Your task to perform on an android device: Go to Android settings Image 0: 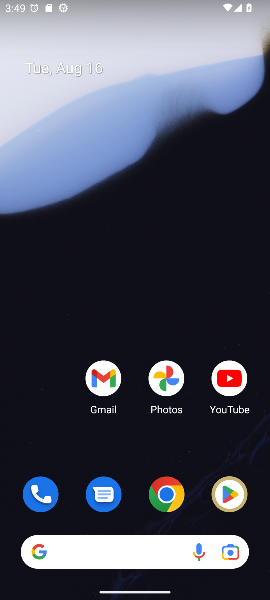
Step 0: drag from (140, 546) to (116, 22)
Your task to perform on an android device: Go to Android settings Image 1: 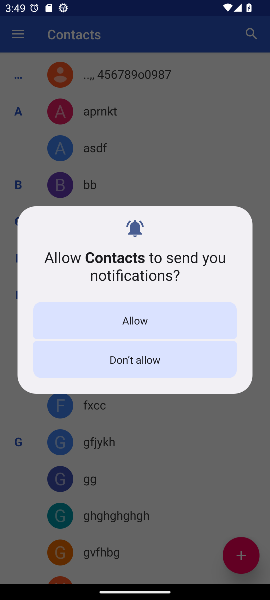
Step 1: press home button
Your task to perform on an android device: Go to Android settings Image 2: 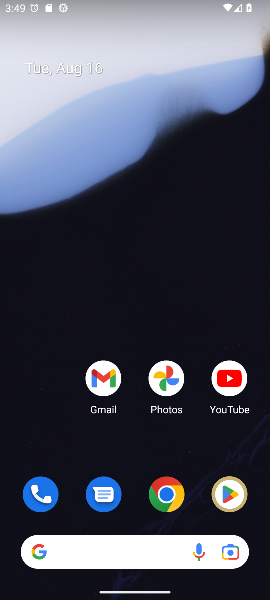
Step 2: drag from (129, 520) to (120, 17)
Your task to perform on an android device: Go to Android settings Image 3: 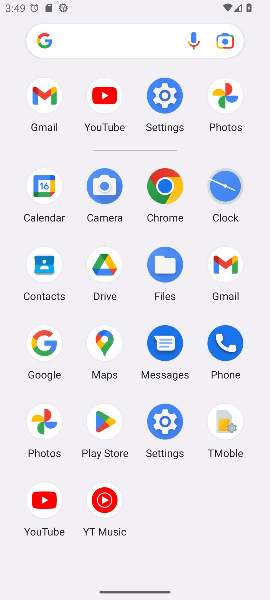
Step 3: click (180, 433)
Your task to perform on an android device: Go to Android settings Image 4: 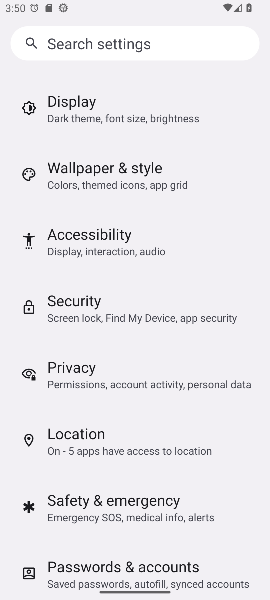
Step 4: task complete